Your task to perform on an android device: star an email in the gmail app Image 0: 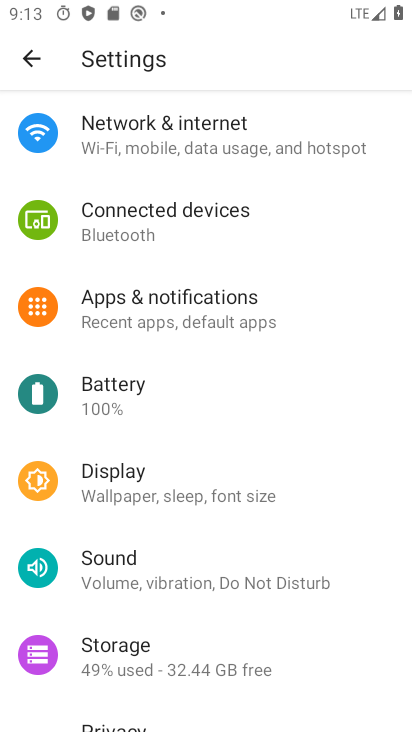
Step 0: press home button
Your task to perform on an android device: star an email in the gmail app Image 1: 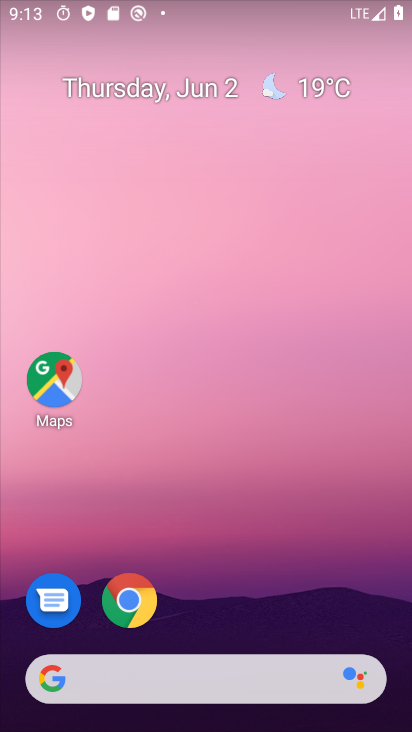
Step 1: drag from (223, 591) to (224, 178)
Your task to perform on an android device: star an email in the gmail app Image 2: 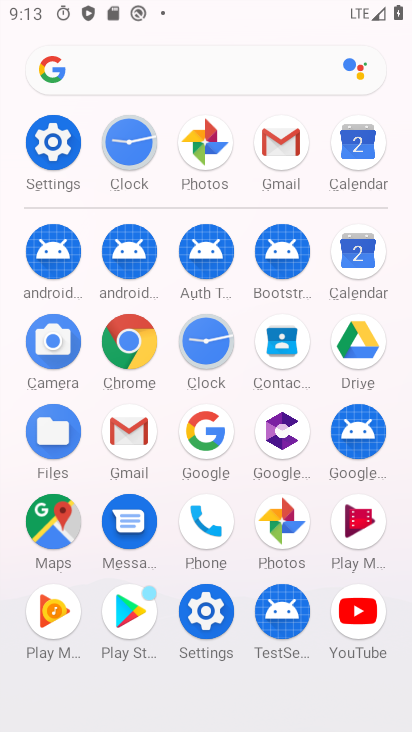
Step 2: click (279, 164)
Your task to perform on an android device: star an email in the gmail app Image 3: 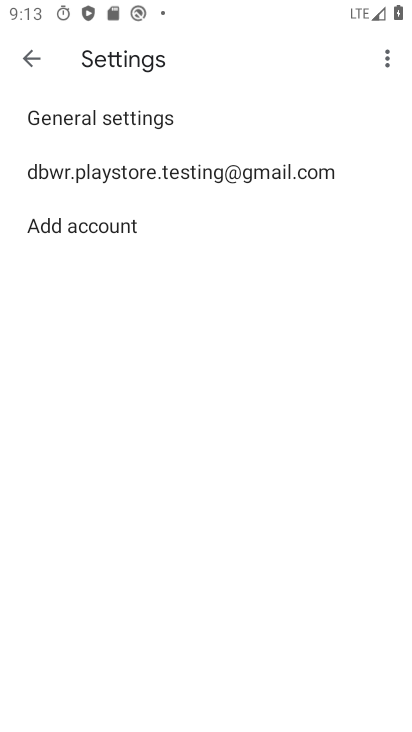
Step 3: click (25, 60)
Your task to perform on an android device: star an email in the gmail app Image 4: 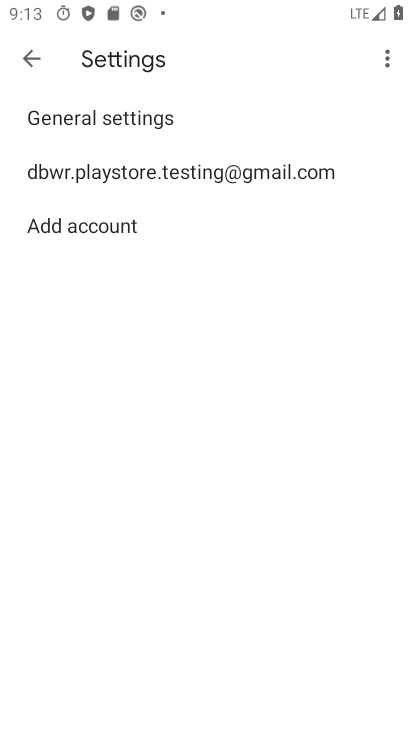
Step 4: click (25, 60)
Your task to perform on an android device: star an email in the gmail app Image 5: 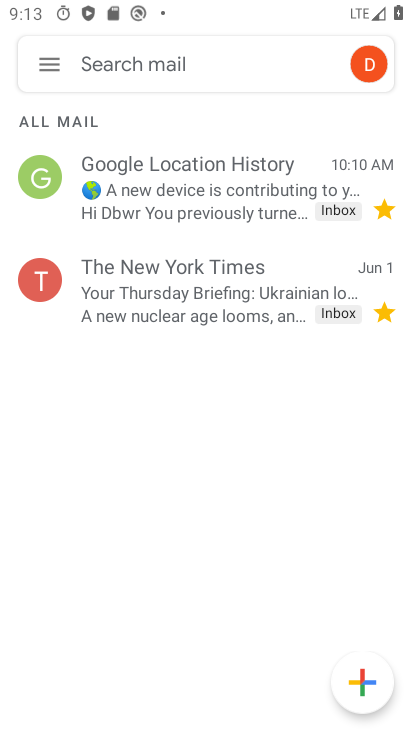
Step 5: click (257, 276)
Your task to perform on an android device: star an email in the gmail app Image 6: 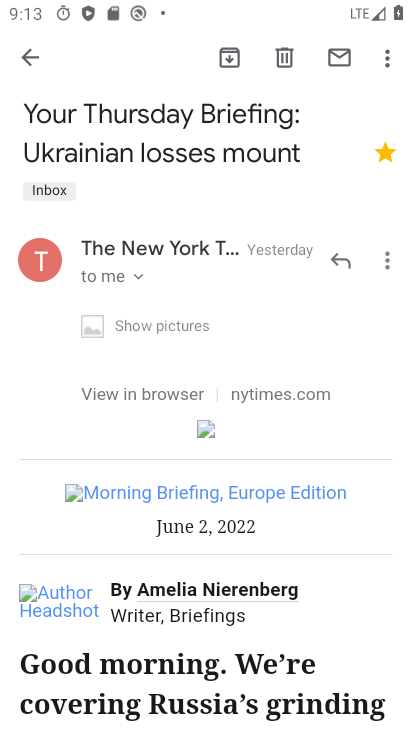
Step 6: click (384, 157)
Your task to perform on an android device: star an email in the gmail app Image 7: 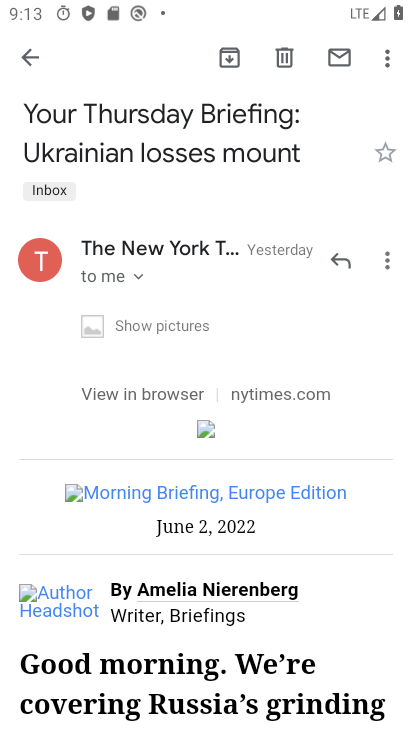
Step 7: click (384, 157)
Your task to perform on an android device: star an email in the gmail app Image 8: 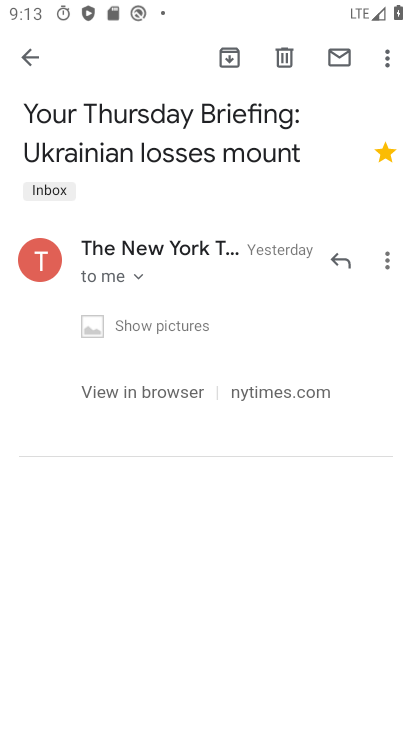
Step 8: task complete